Your task to perform on an android device: Empty the shopping cart on walmart. Add "razer thresher" to the cart on walmart Image 0: 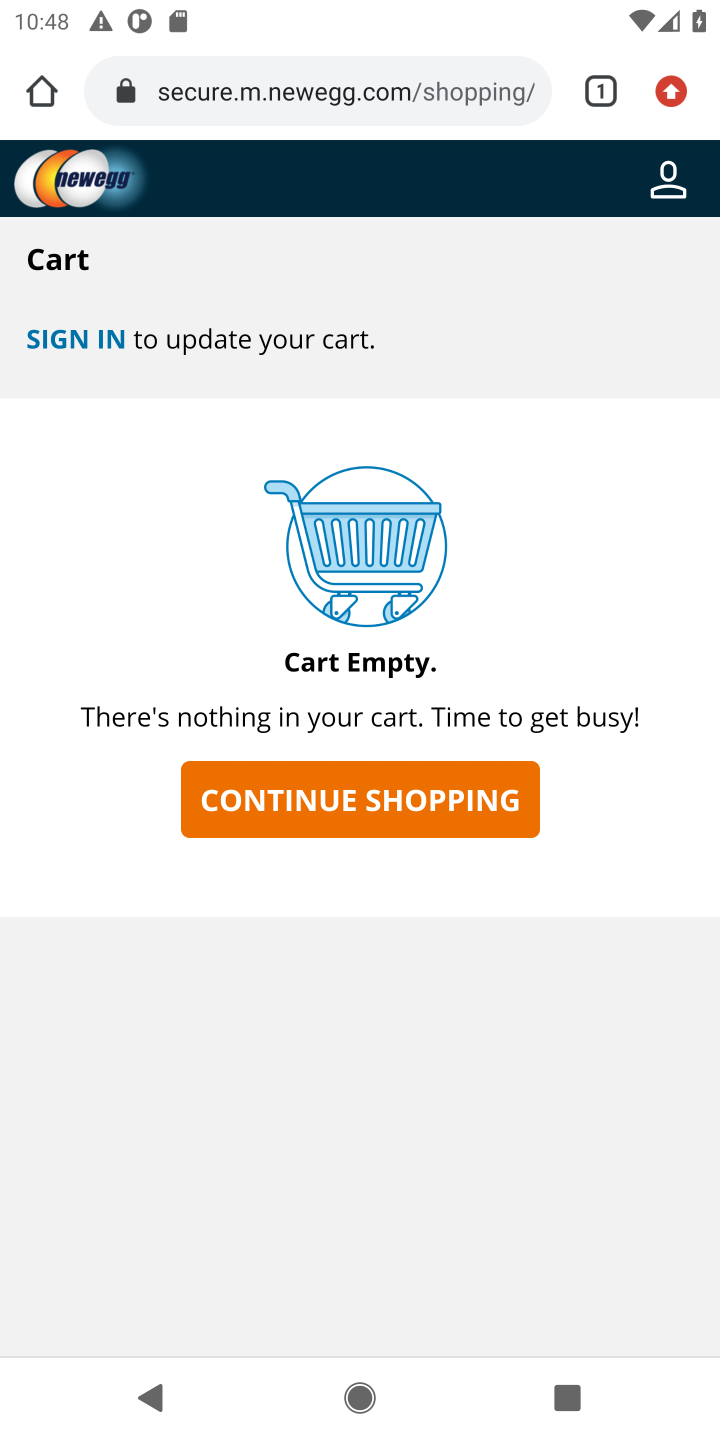
Step 0: click (405, 104)
Your task to perform on an android device: Empty the shopping cart on walmart. Add "razer thresher" to the cart on walmart Image 1: 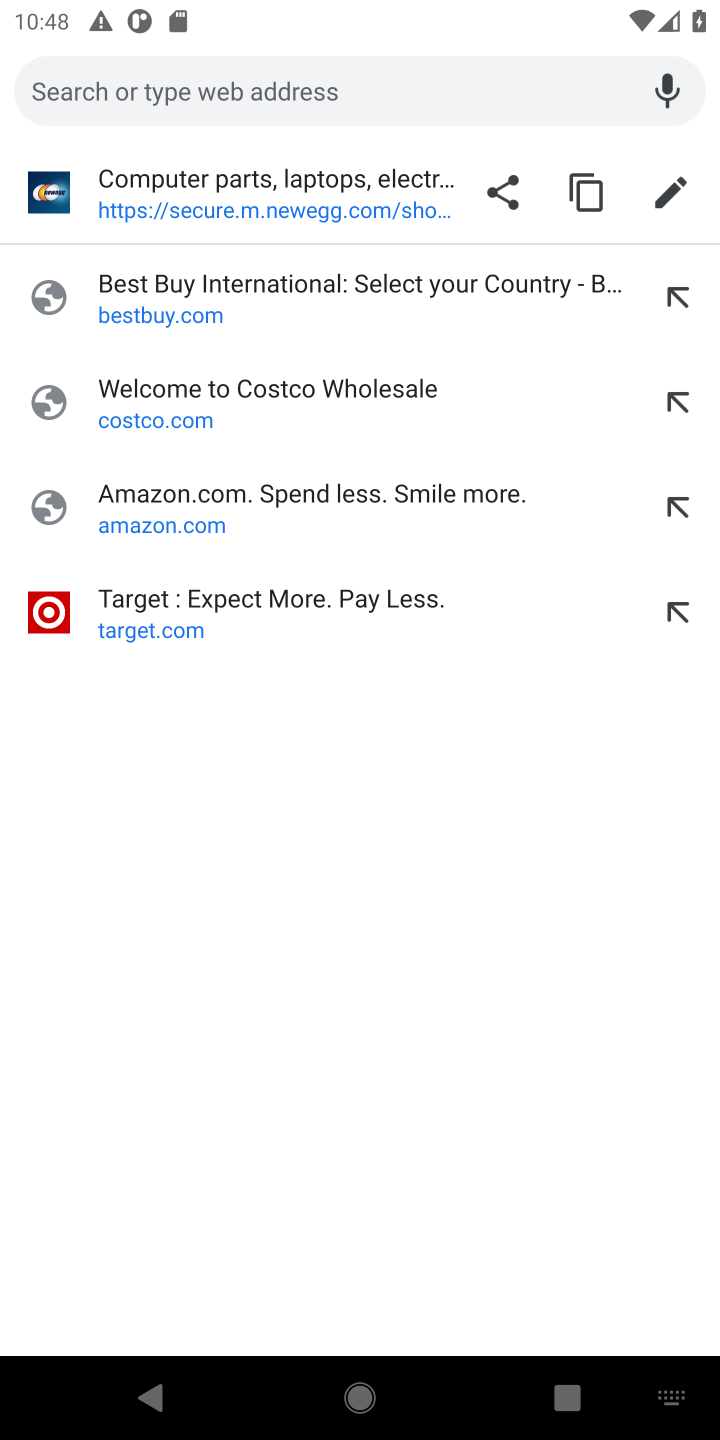
Step 1: type "walmart.com"
Your task to perform on an android device: Empty the shopping cart on walmart. Add "razer thresher" to the cart on walmart Image 2: 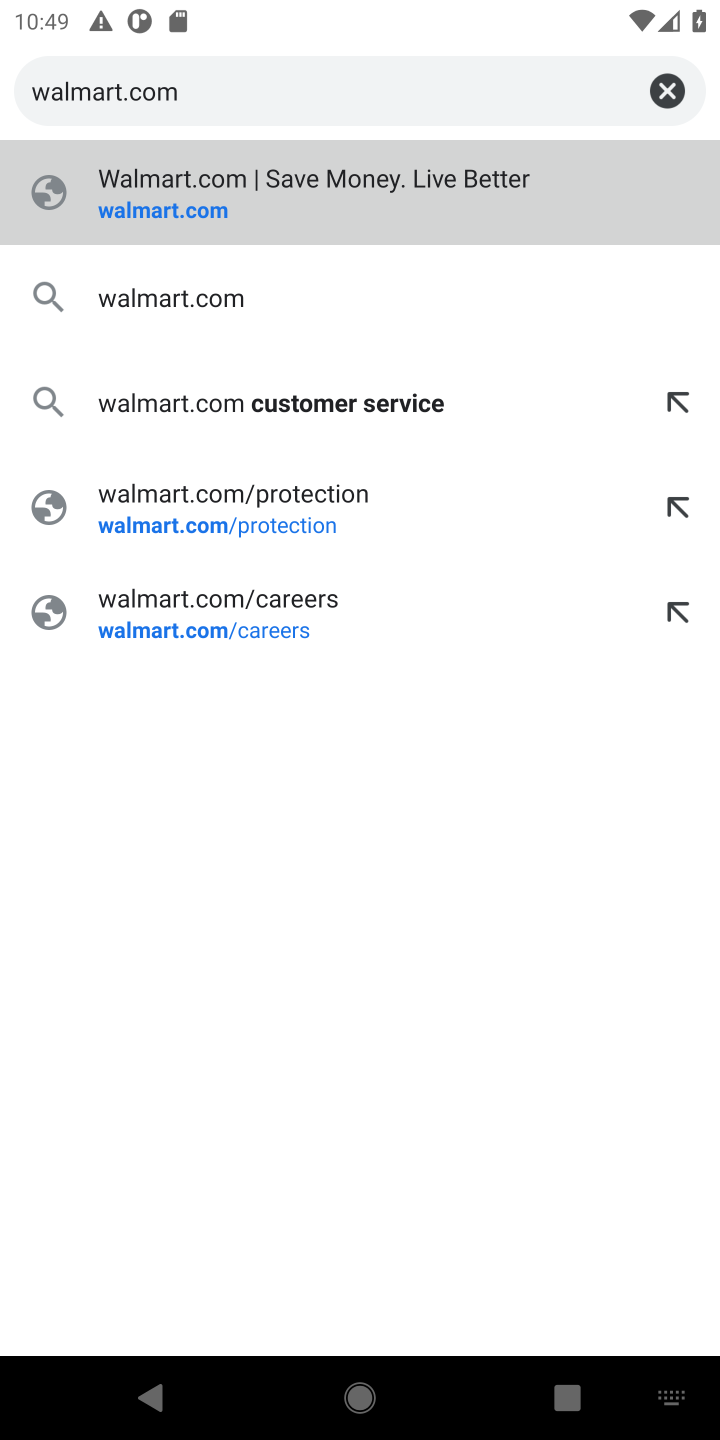
Step 2: press enter
Your task to perform on an android device: Empty the shopping cart on walmart. Add "razer thresher" to the cart on walmart Image 3: 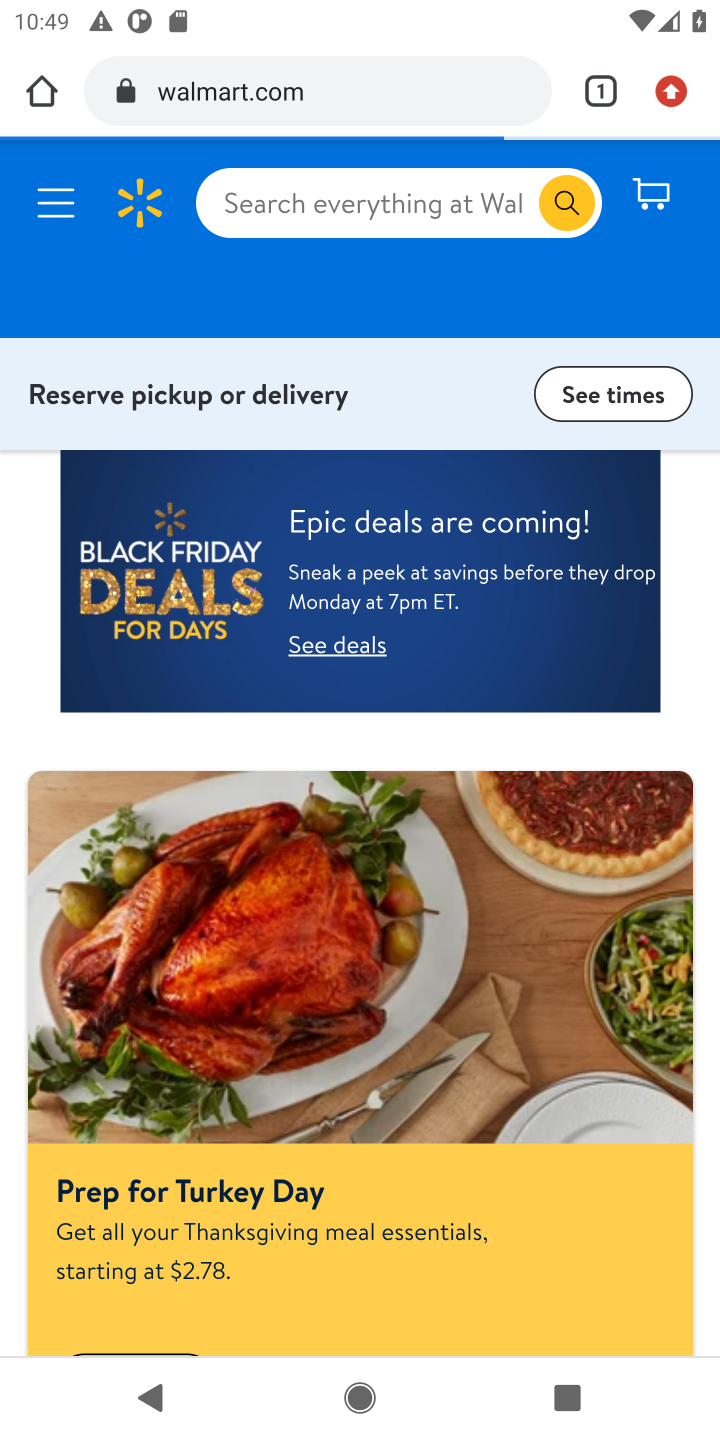
Step 3: click (424, 208)
Your task to perform on an android device: Empty the shopping cart on walmart. Add "razer thresher" to the cart on walmart Image 4: 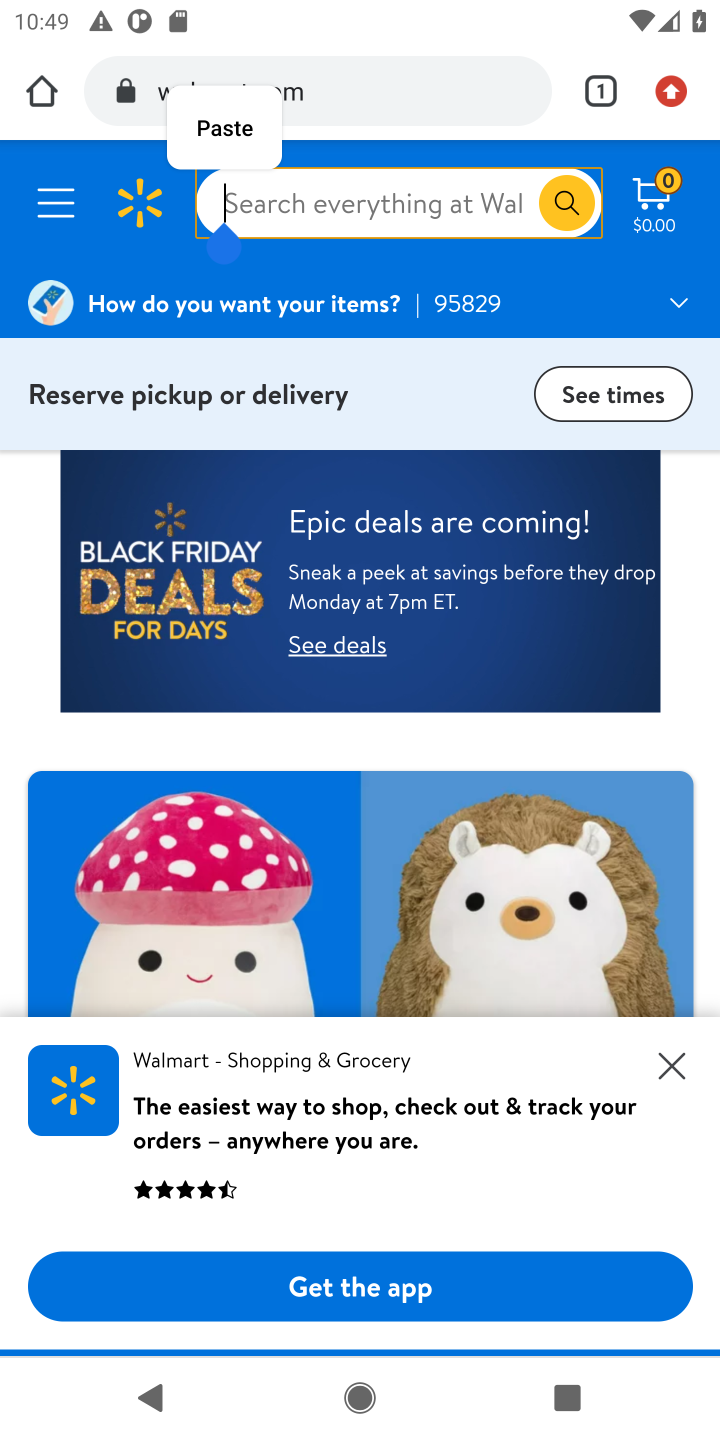
Step 4: click (662, 193)
Your task to perform on an android device: Empty the shopping cart on walmart. Add "razer thresher" to the cart on walmart Image 5: 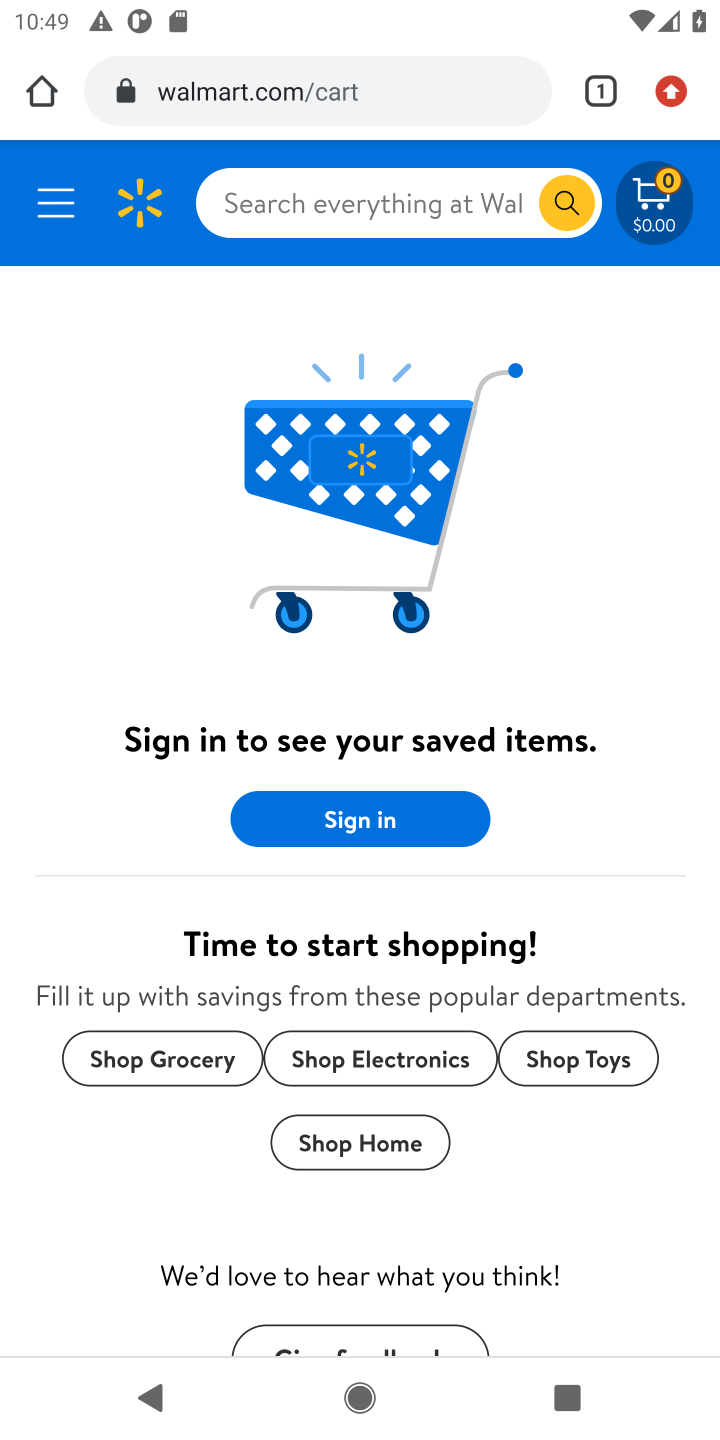
Step 5: click (382, 203)
Your task to perform on an android device: Empty the shopping cart on walmart. Add "razer thresher" to the cart on walmart Image 6: 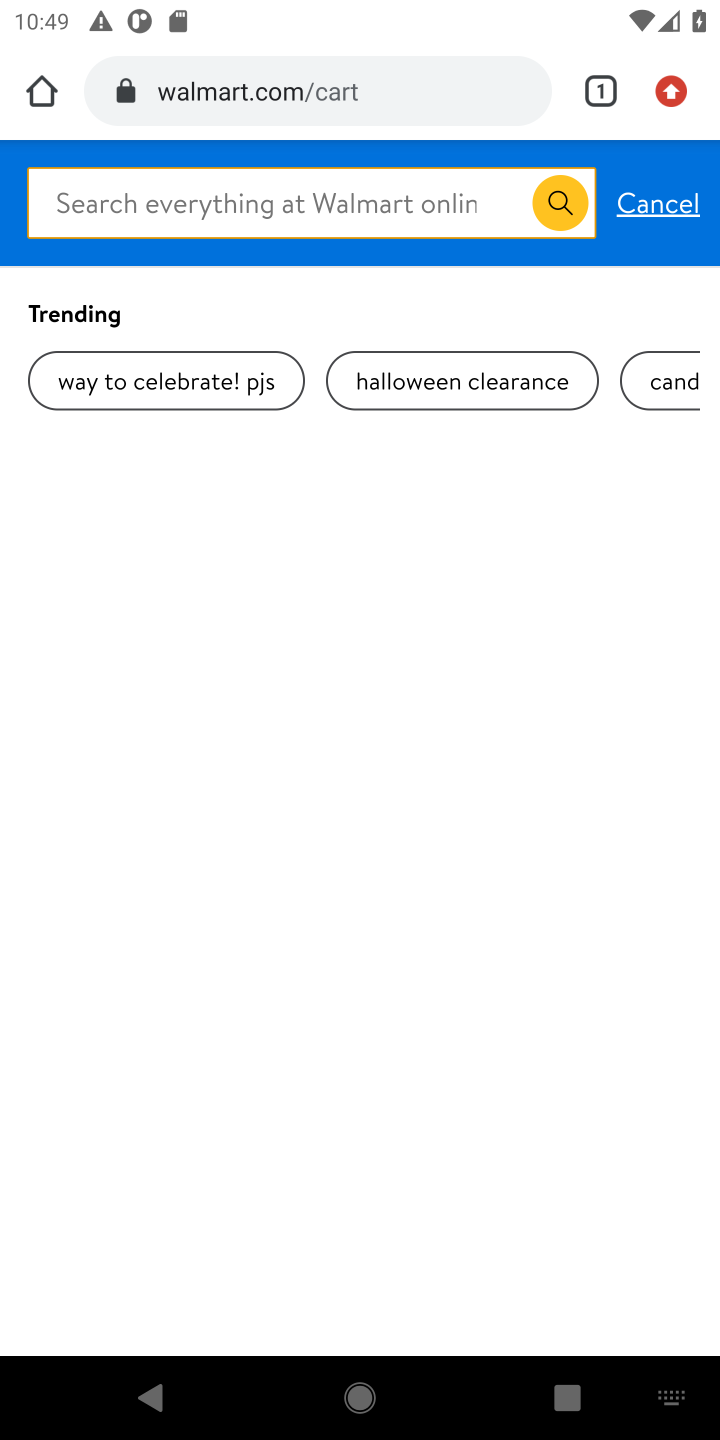
Step 6: type "razer thresher"
Your task to perform on an android device: Empty the shopping cart on walmart. Add "razer thresher" to the cart on walmart Image 7: 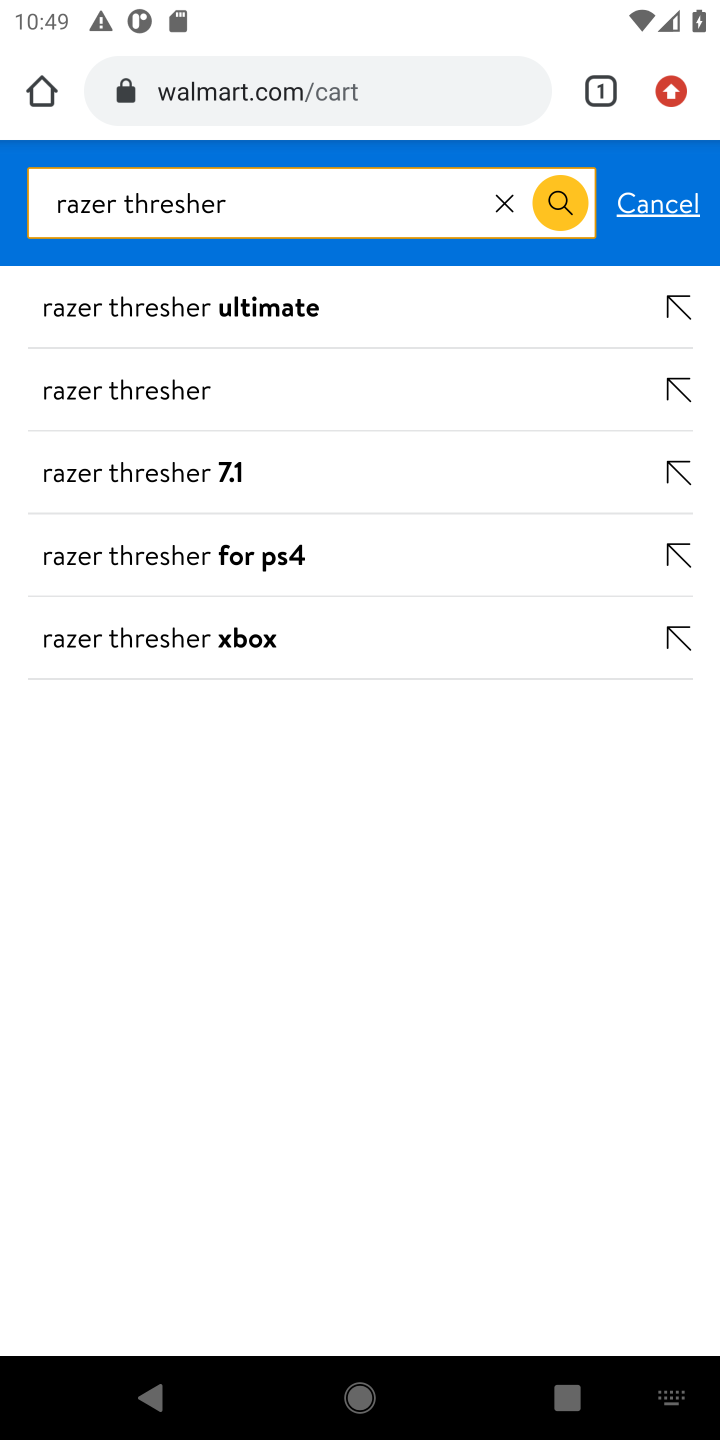
Step 7: press enter
Your task to perform on an android device: Empty the shopping cart on walmart. Add "razer thresher" to the cart on walmart Image 8: 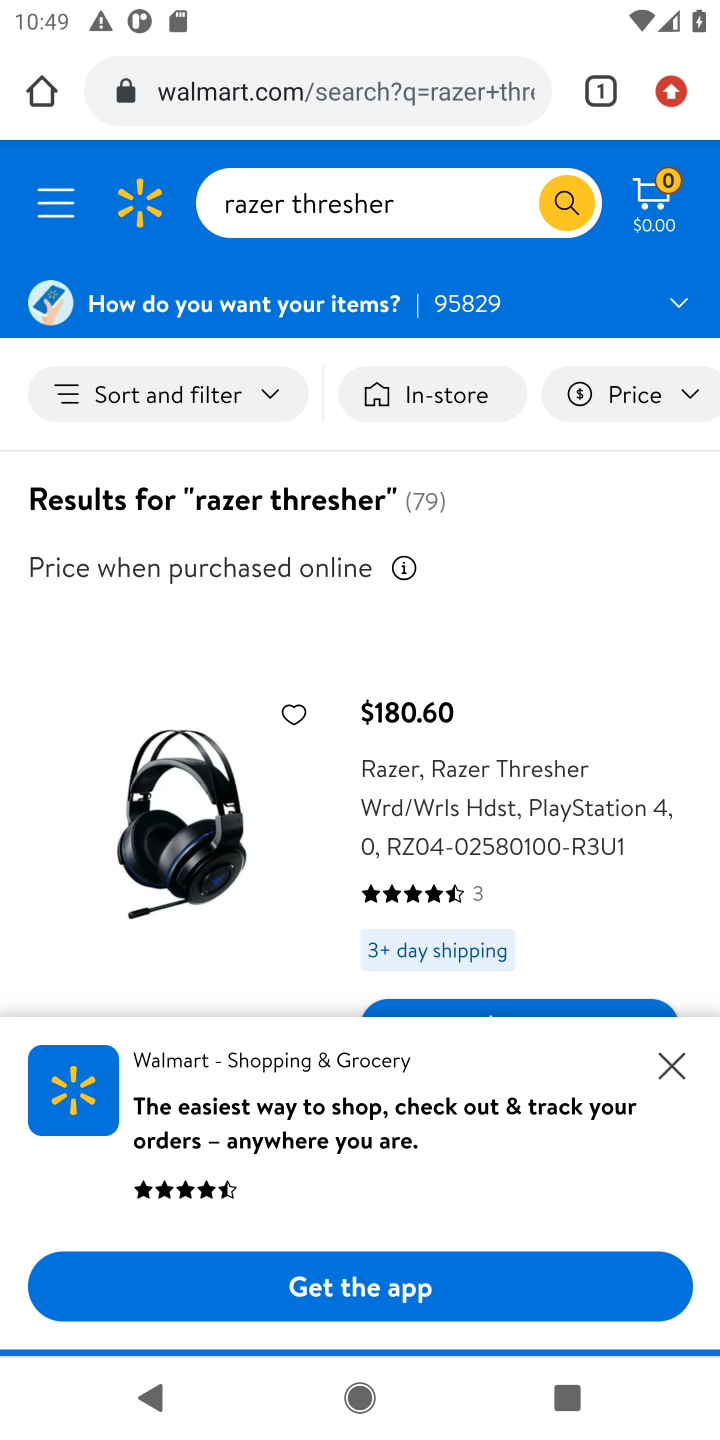
Step 8: drag from (411, 846) to (427, 361)
Your task to perform on an android device: Empty the shopping cart on walmart. Add "razer thresher" to the cart on walmart Image 9: 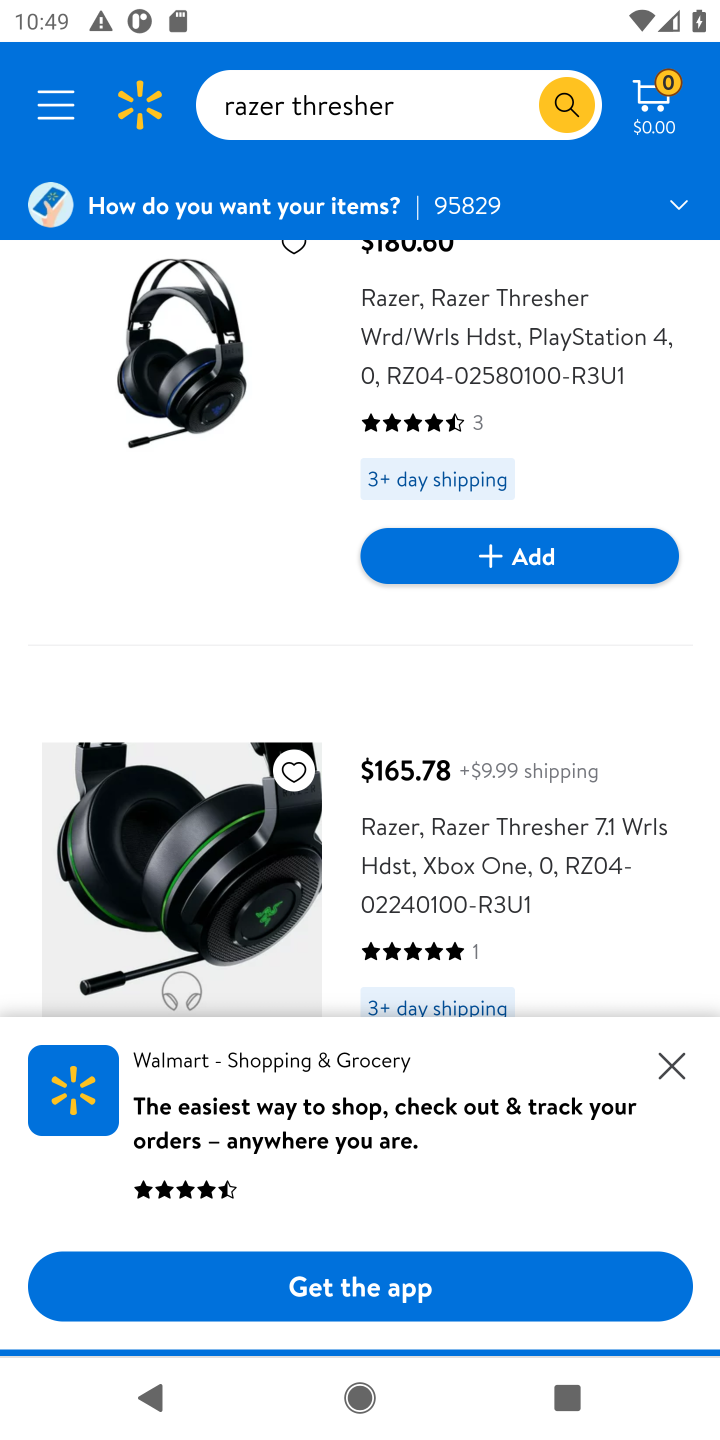
Step 9: drag from (379, 768) to (392, 567)
Your task to perform on an android device: Empty the shopping cart on walmart. Add "razer thresher" to the cart on walmart Image 10: 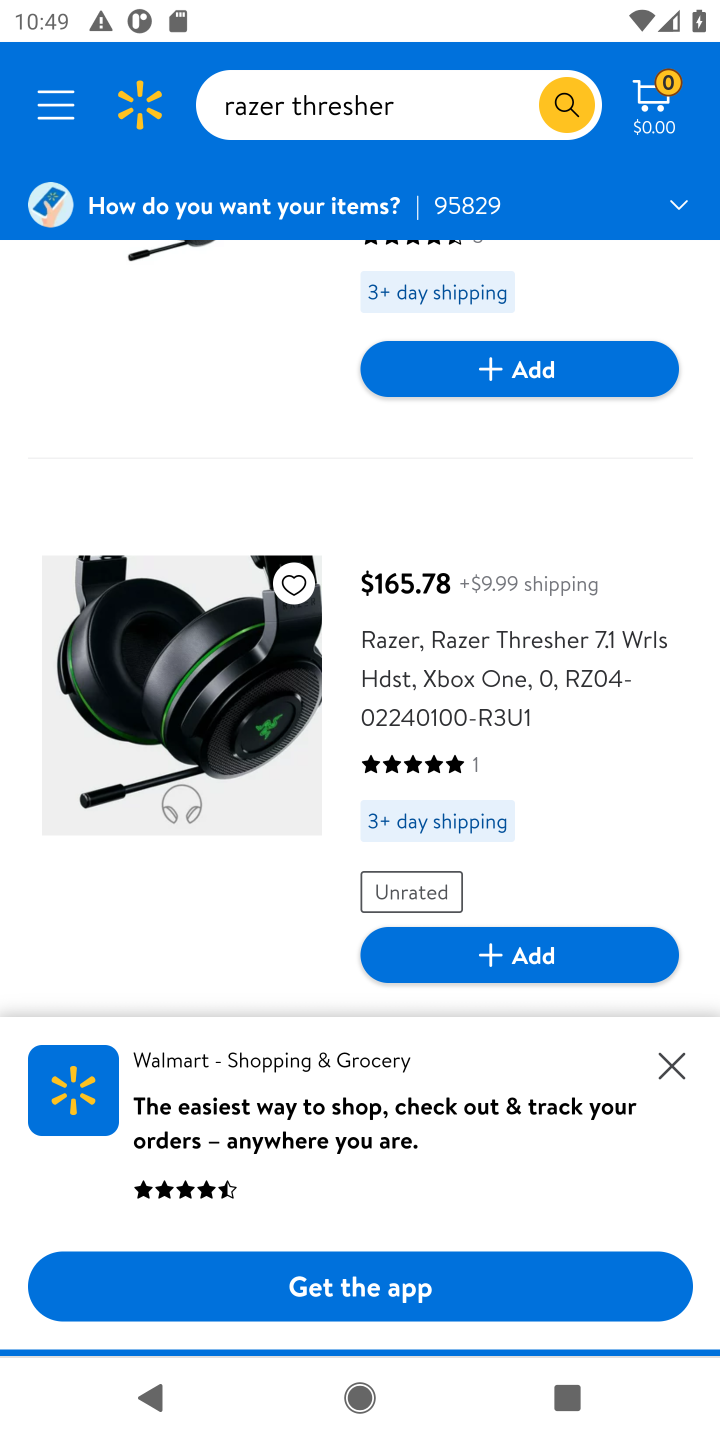
Step 10: drag from (398, 827) to (391, 326)
Your task to perform on an android device: Empty the shopping cart on walmart. Add "razer thresher" to the cart on walmart Image 11: 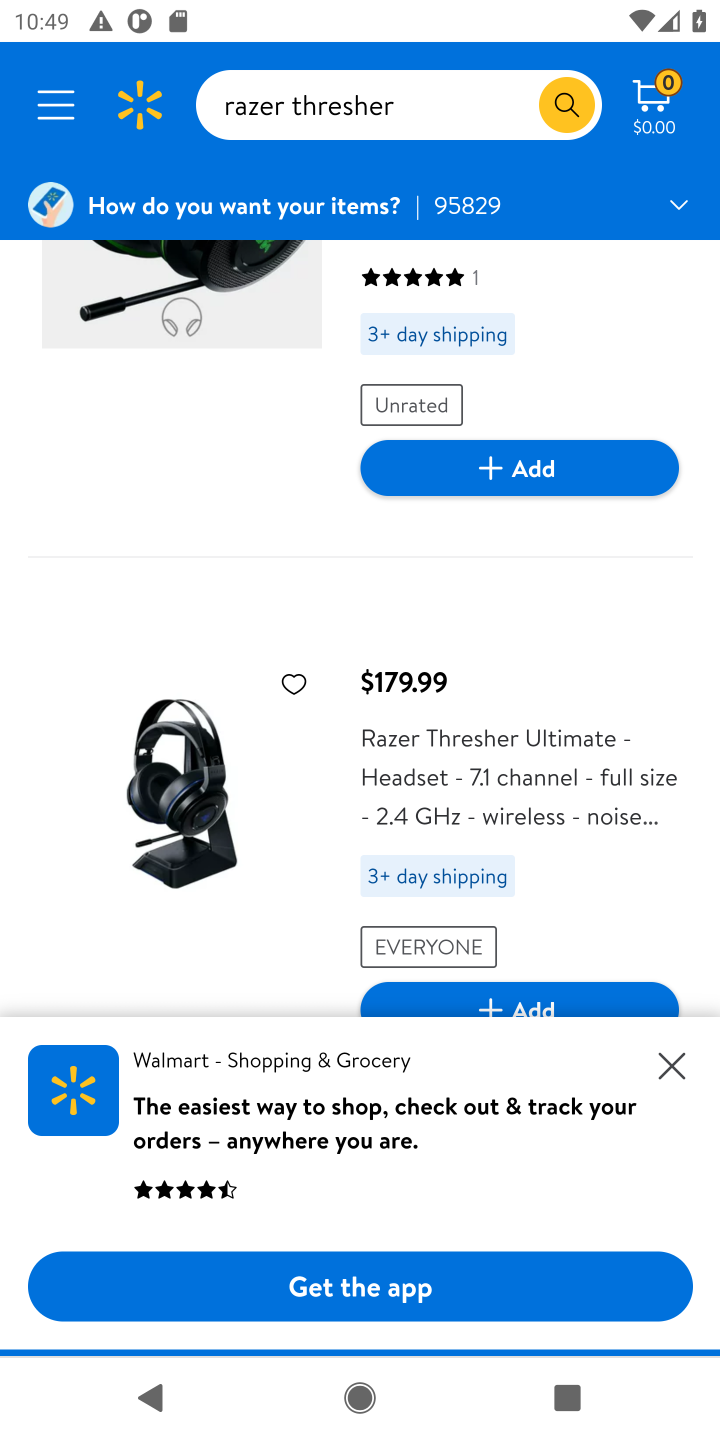
Step 11: drag from (212, 482) to (313, 1186)
Your task to perform on an android device: Empty the shopping cart on walmart. Add "razer thresher" to the cart on walmart Image 12: 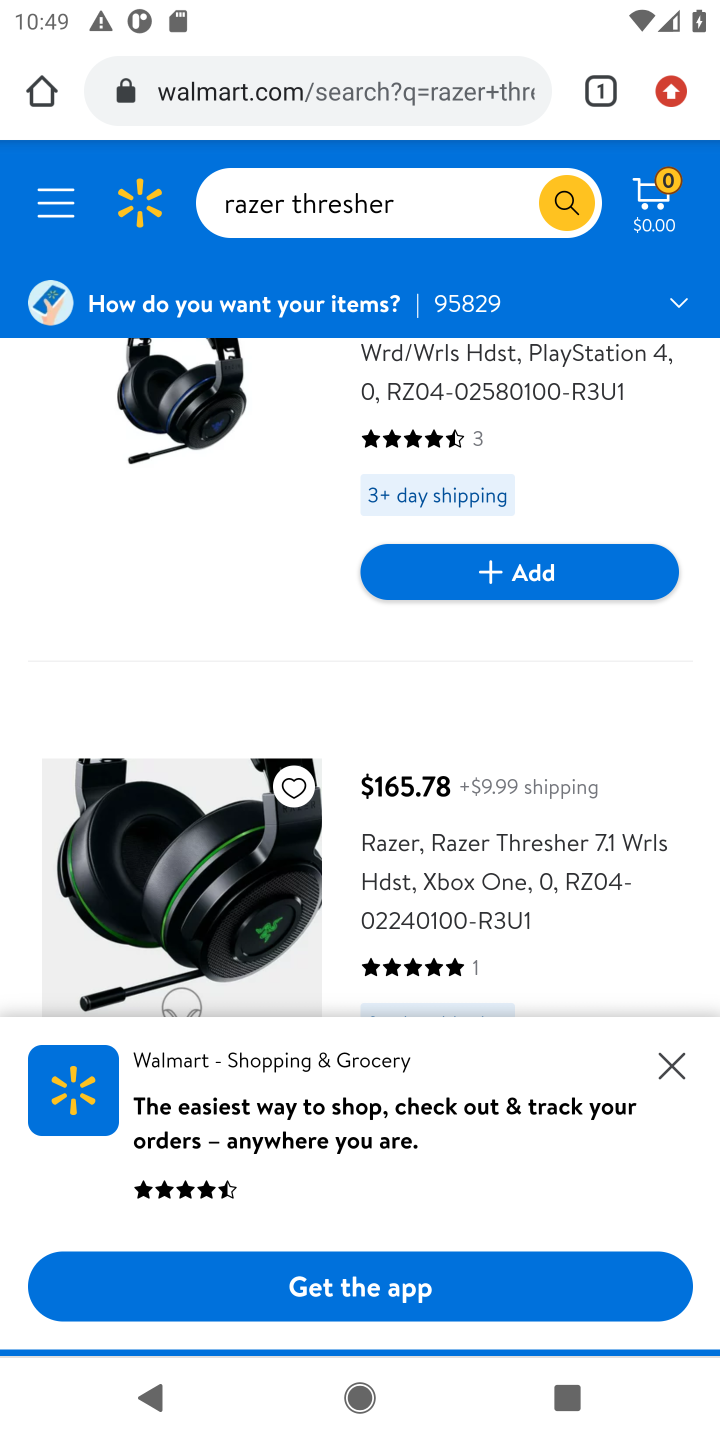
Step 12: drag from (267, 442) to (245, 917)
Your task to perform on an android device: Empty the shopping cart on walmart. Add "razer thresher" to the cart on walmart Image 13: 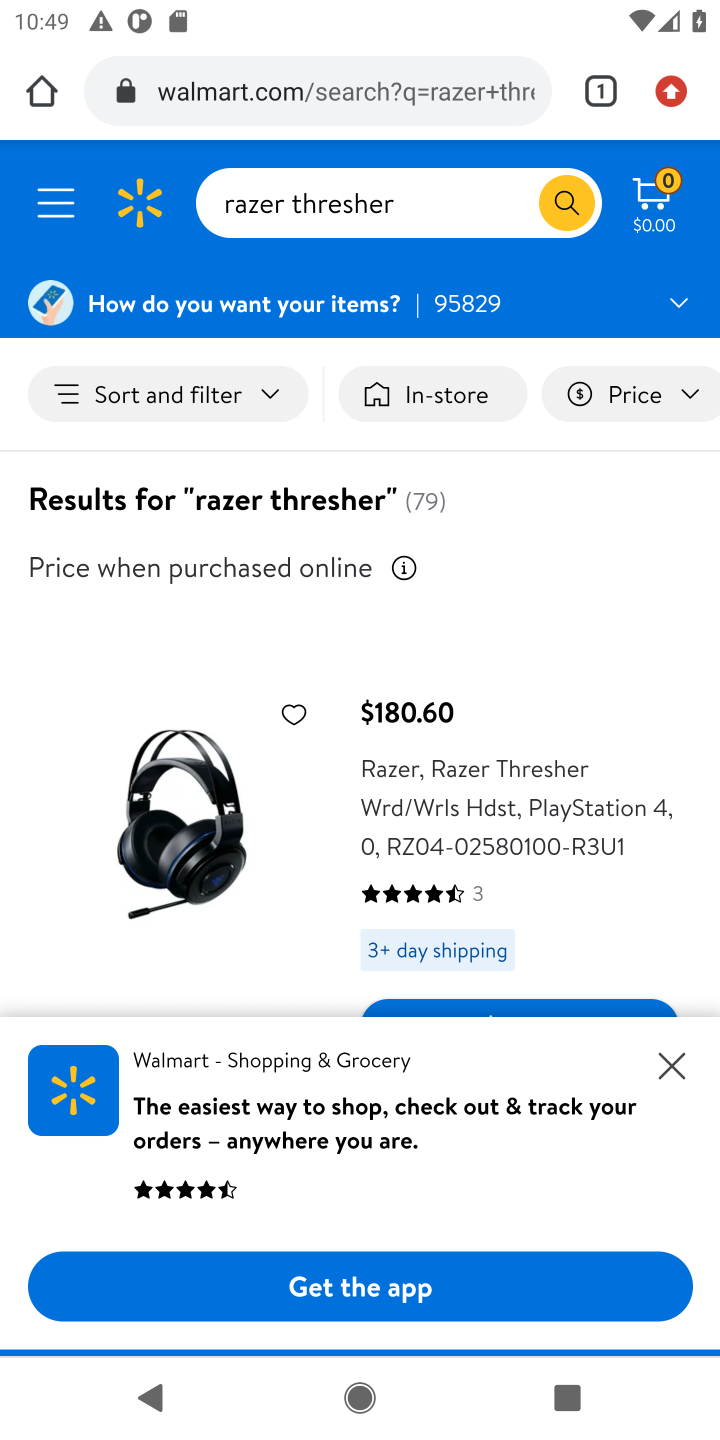
Step 13: click (475, 811)
Your task to perform on an android device: Empty the shopping cart on walmart. Add "razer thresher" to the cart on walmart Image 14: 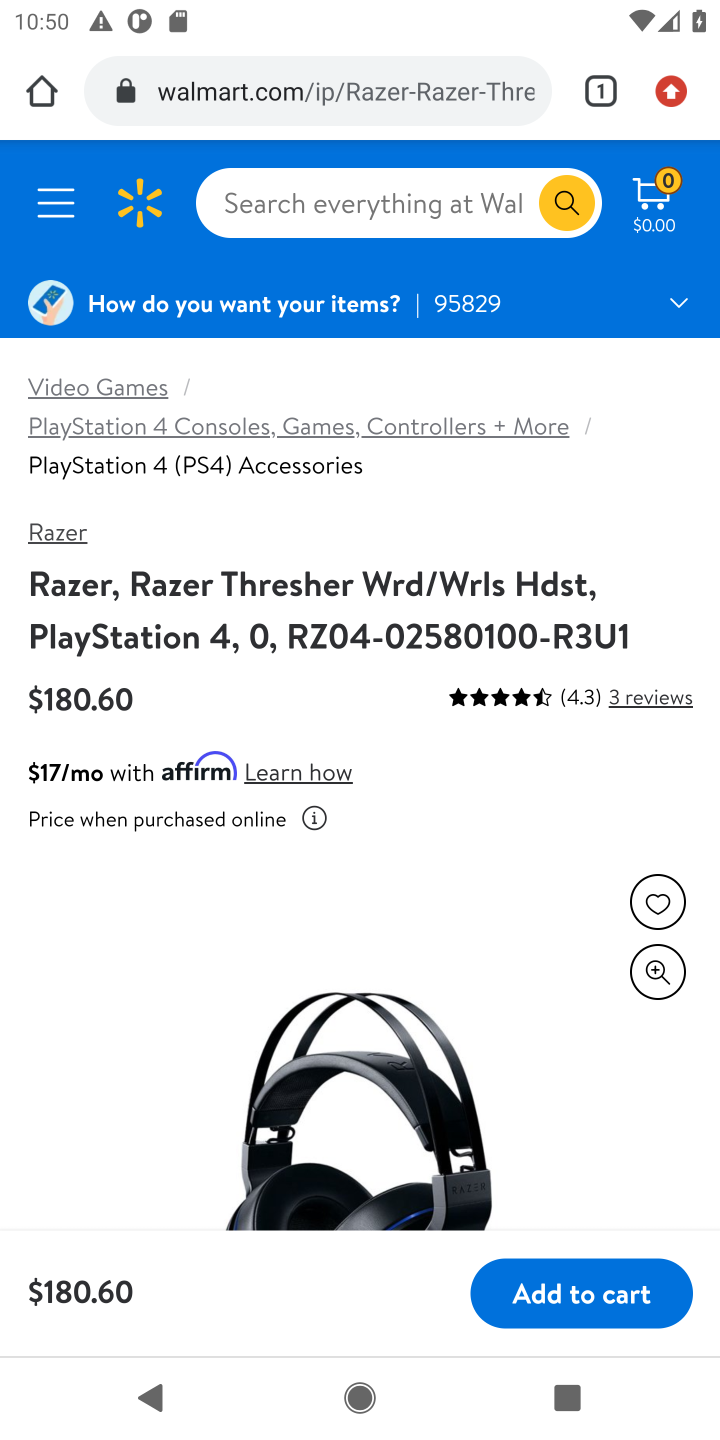
Step 14: click (613, 1303)
Your task to perform on an android device: Empty the shopping cart on walmart. Add "razer thresher" to the cart on walmart Image 15: 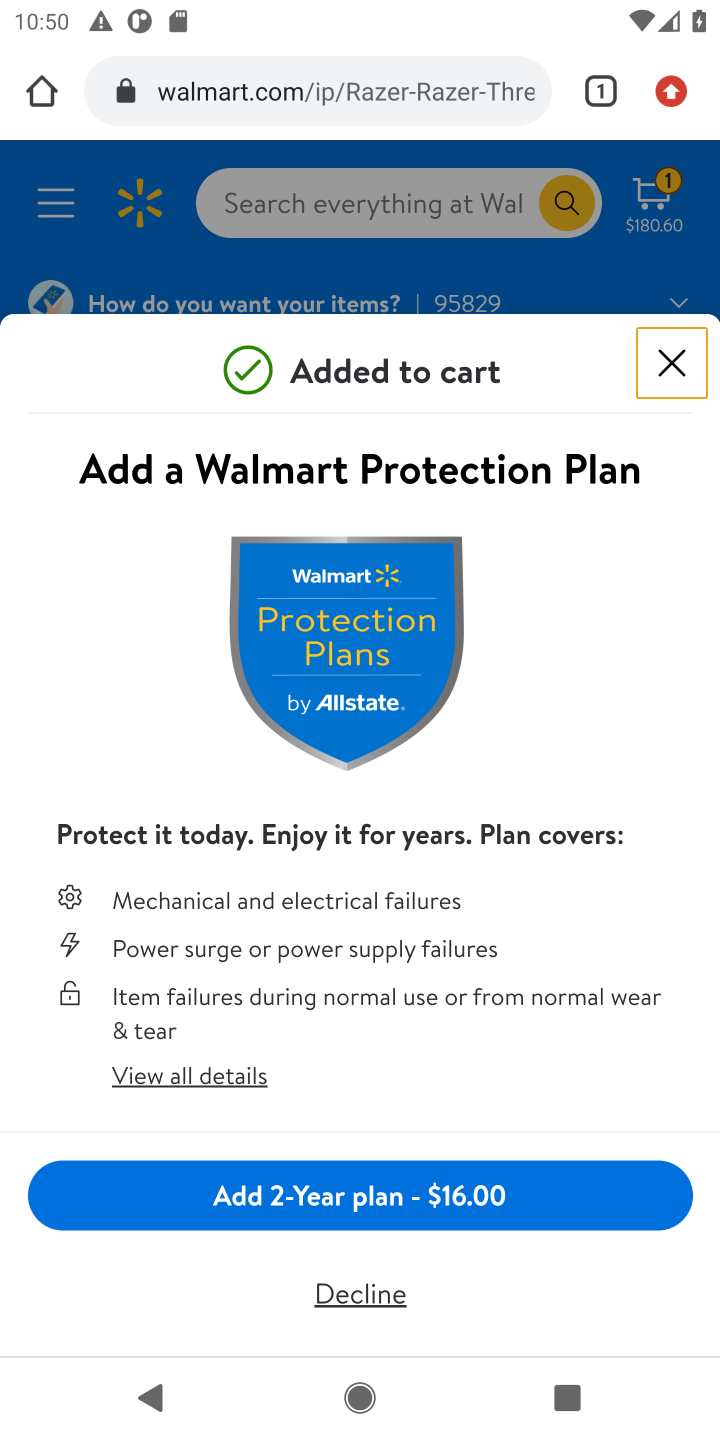
Step 15: task complete